Your task to perform on an android device: Show me the alarms in the clock app Image 0: 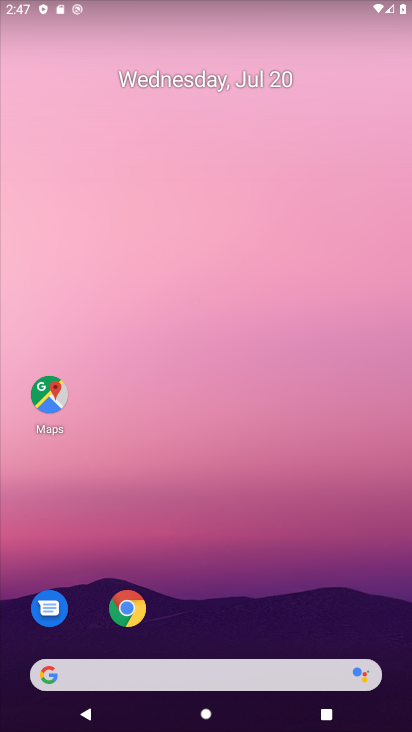
Step 0: drag from (259, 570) to (212, 52)
Your task to perform on an android device: Show me the alarms in the clock app Image 1: 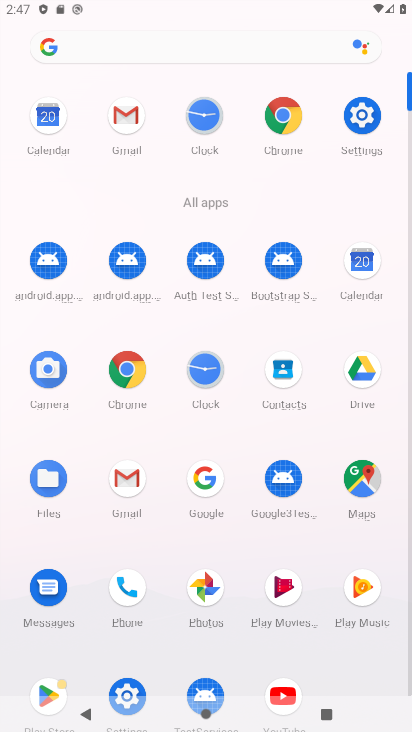
Step 1: click (197, 374)
Your task to perform on an android device: Show me the alarms in the clock app Image 2: 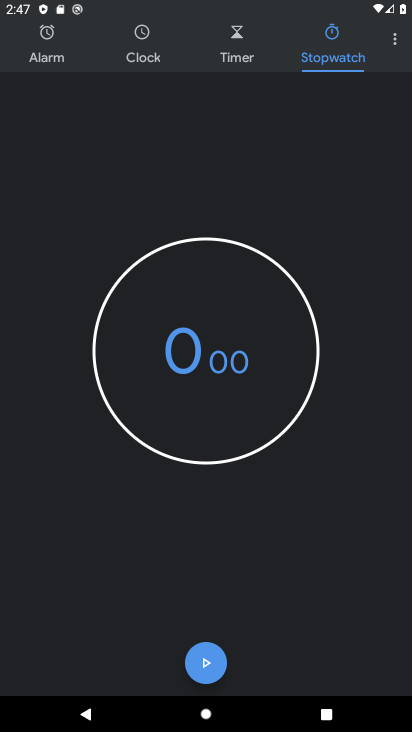
Step 2: click (47, 44)
Your task to perform on an android device: Show me the alarms in the clock app Image 3: 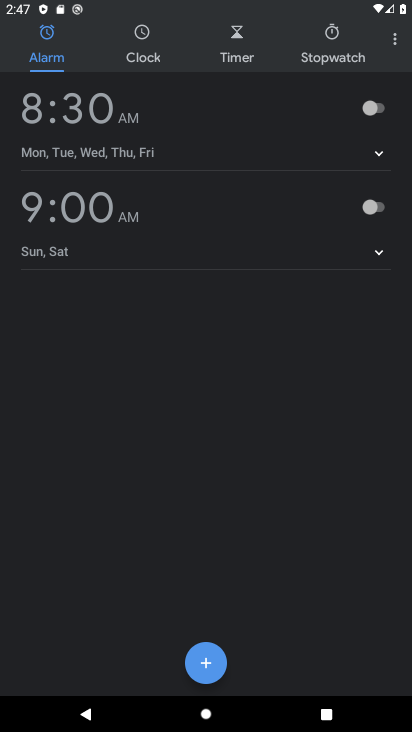
Step 3: task complete